Your task to perform on an android device: Go to accessibility settings Image 0: 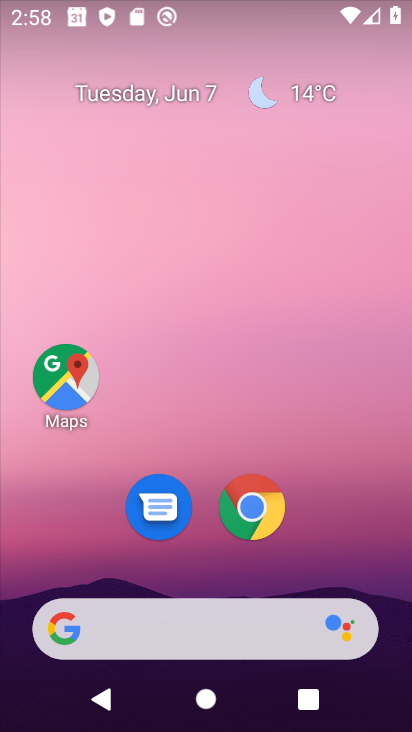
Step 0: drag from (337, 542) to (347, 90)
Your task to perform on an android device: Go to accessibility settings Image 1: 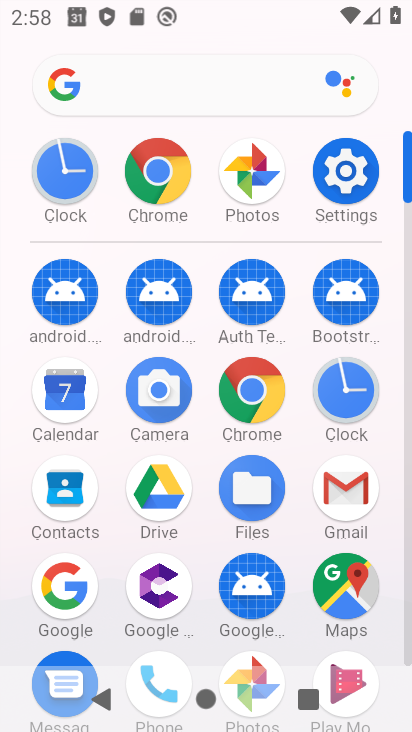
Step 1: click (353, 169)
Your task to perform on an android device: Go to accessibility settings Image 2: 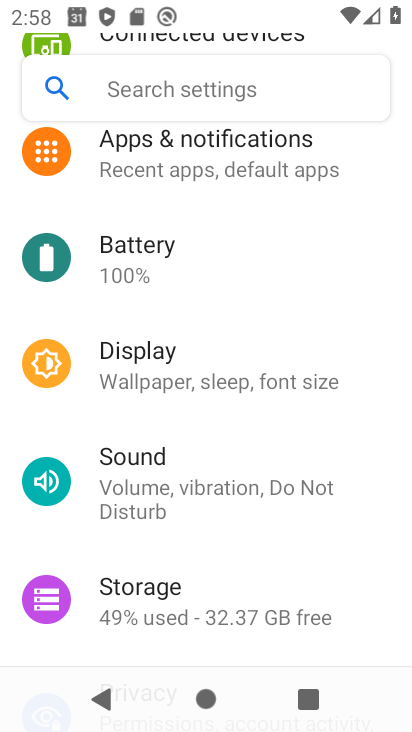
Step 2: drag from (251, 479) to (318, 82)
Your task to perform on an android device: Go to accessibility settings Image 3: 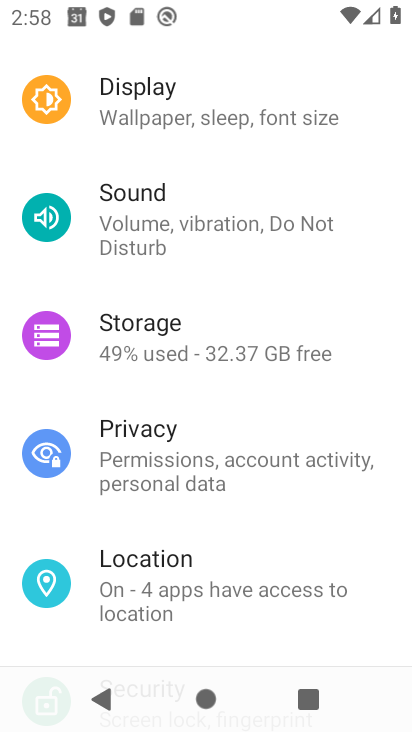
Step 3: drag from (209, 499) to (283, 133)
Your task to perform on an android device: Go to accessibility settings Image 4: 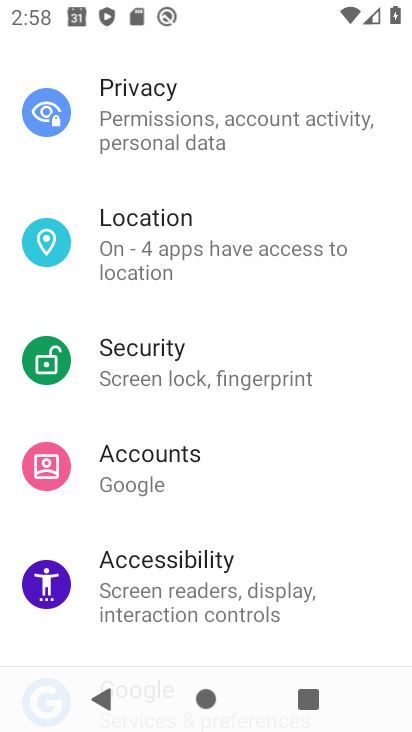
Step 4: click (182, 573)
Your task to perform on an android device: Go to accessibility settings Image 5: 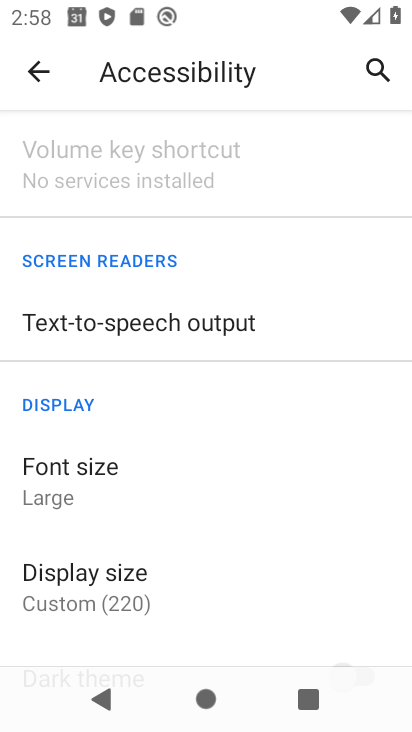
Step 5: task complete